Your task to perform on an android device: What's on my calendar today? Image 0: 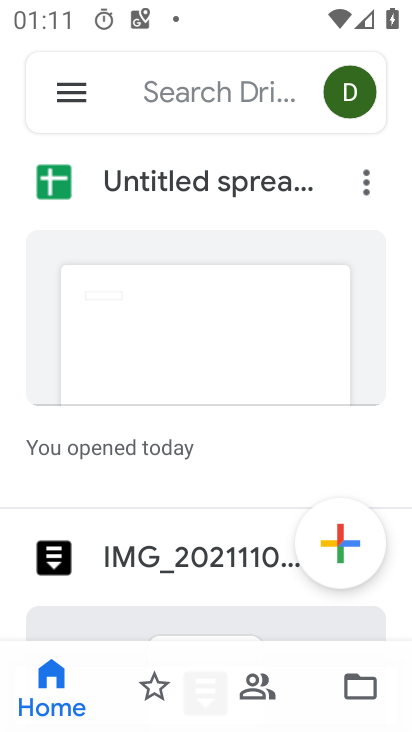
Step 0: press home button
Your task to perform on an android device: What's on my calendar today? Image 1: 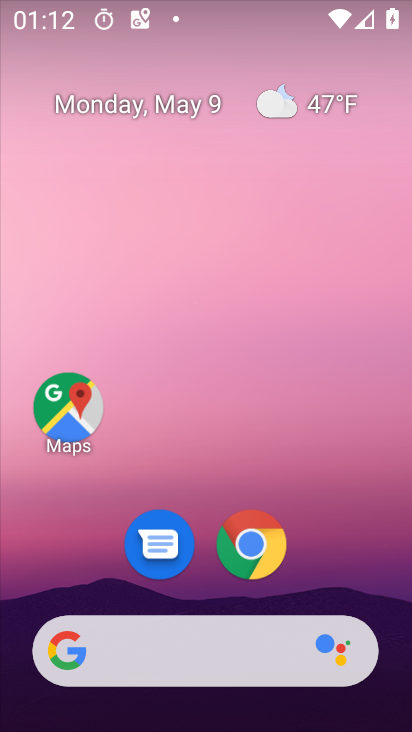
Step 1: drag from (355, 573) to (410, 540)
Your task to perform on an android device: What's on my calendar today? Image 2: 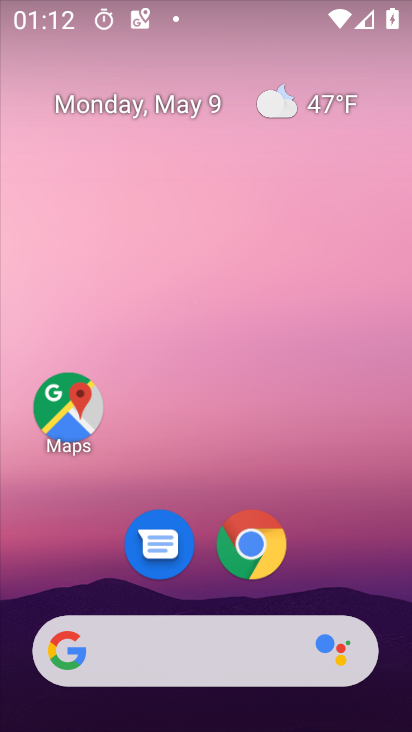
Step 2: click (67, 397)
Your task to perform on an android device: What's on my calendar today? Image 3: 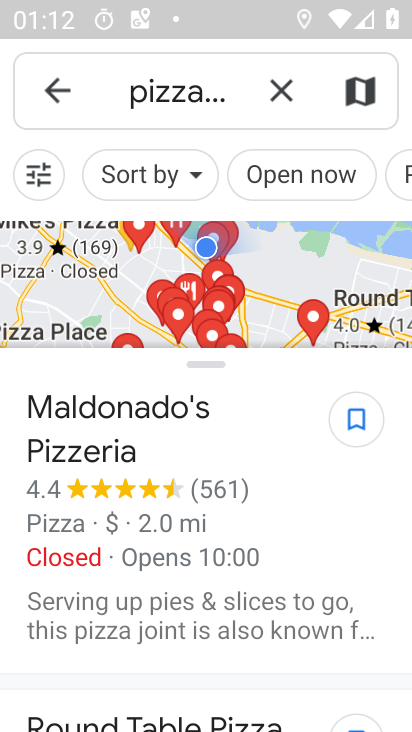
Step 3: press home button
Your task to perform on an android device: What's on my calendar today? Image 4: 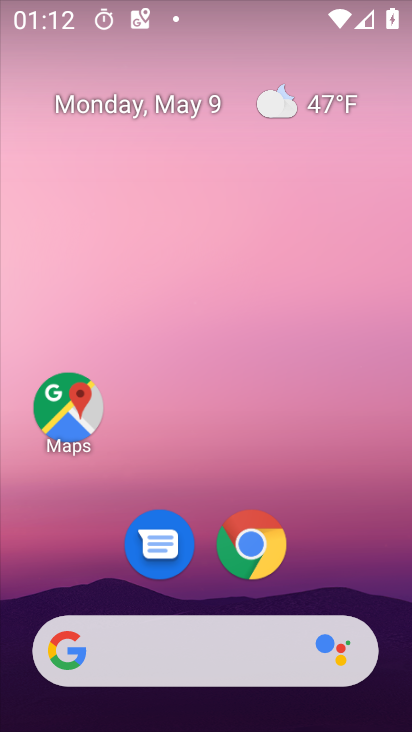
Step 4: drag from (188, 628) to (83, 123)
Your task to perform on an android device: What's on my calendar today? Image 5: 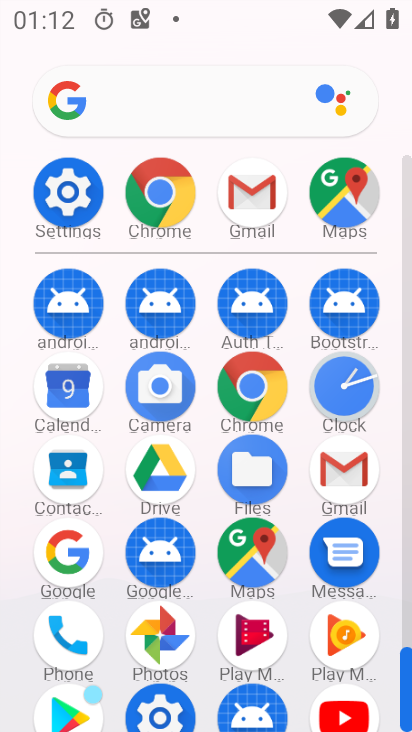
Step 5: click (61, 387)
Your task to perform on an android device: What's on my calendar today? Image 6: 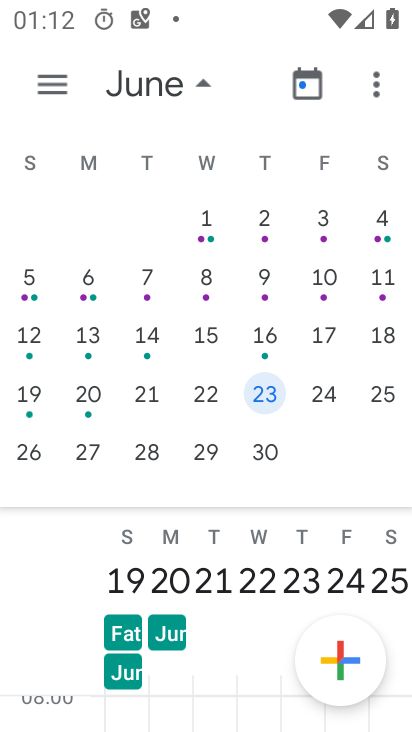
Step 6: click (210, 80)
Your task to perform on an android device: What's on my calendar today? Image 7: 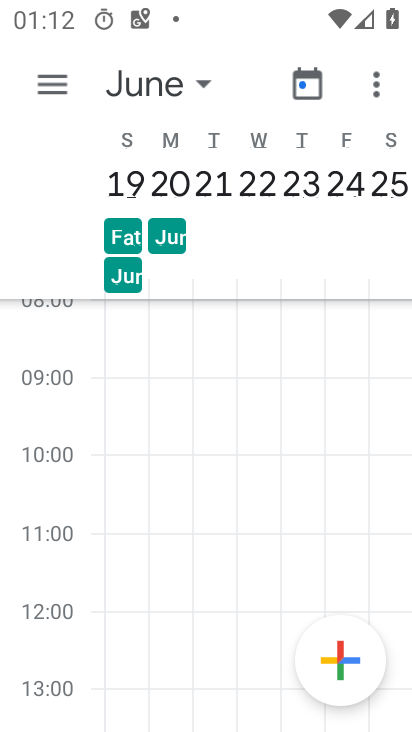
Step 7: click (195, 83)
Your task to perform on an android device: What's on my calendar today? Image 8: 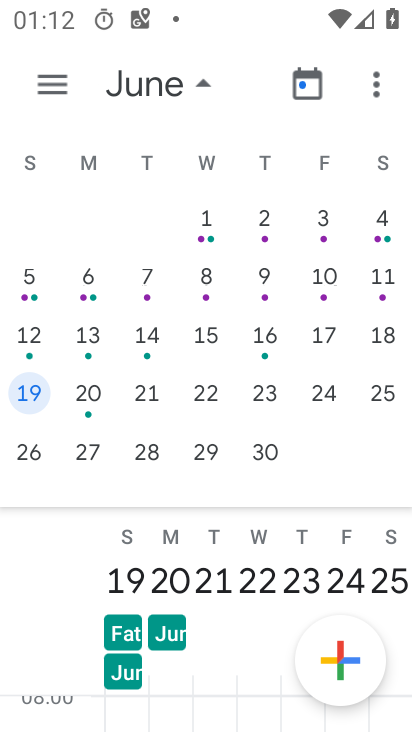
Step 8: drag from (39, 242) to (382, 233)
Your task to perform on an android device: What's on my calendar today? Image 9: 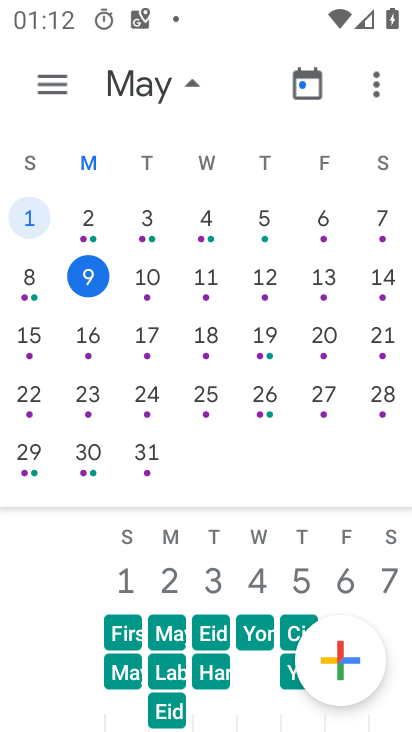
Step 9: click (88, 272)
Your task to perform on an android device: What's on my calendar today? Image 10: 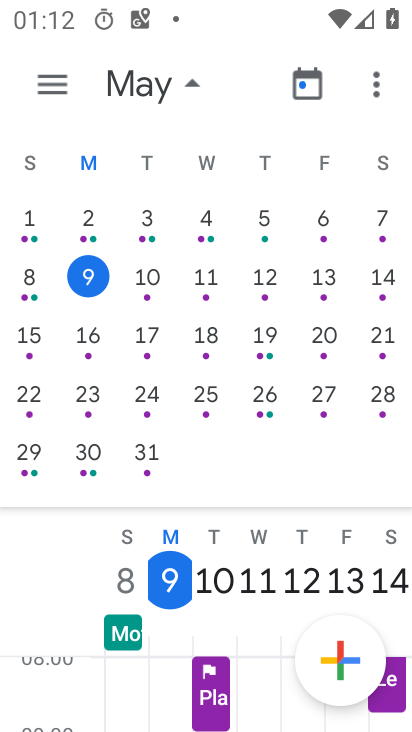
Step 10: task complete